Your task to perform on an android device: turn on the 12-hour format for clock Image 0: 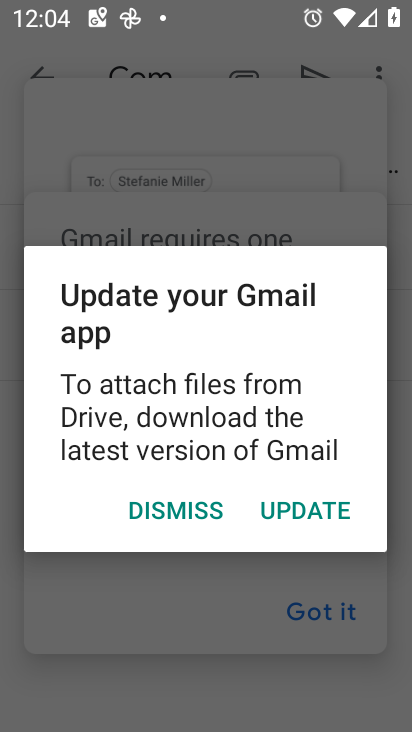
Step 0: press home button
Your task to perform on an android device: turn on the 12-hour format for clock Image 1: 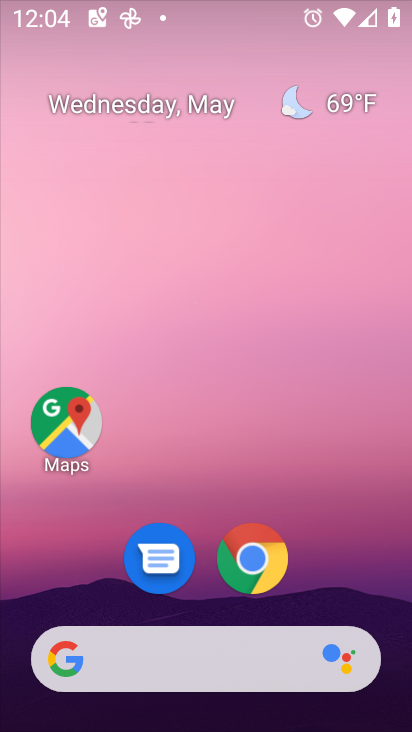
Step 1: drag from (398, 661) to (295, 110)
Your task to perform on an android device: turn on the 12-hour format for clock Image 2: 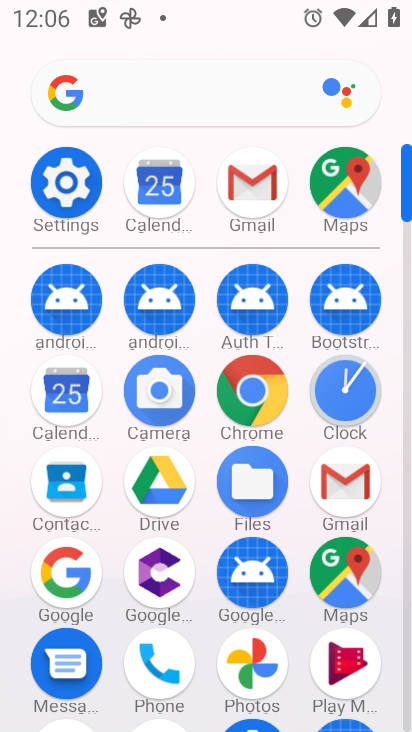
Step 2: click (323, 384)
Your task to perform on an android device: turn on the 12-hour format for clock Image 3: 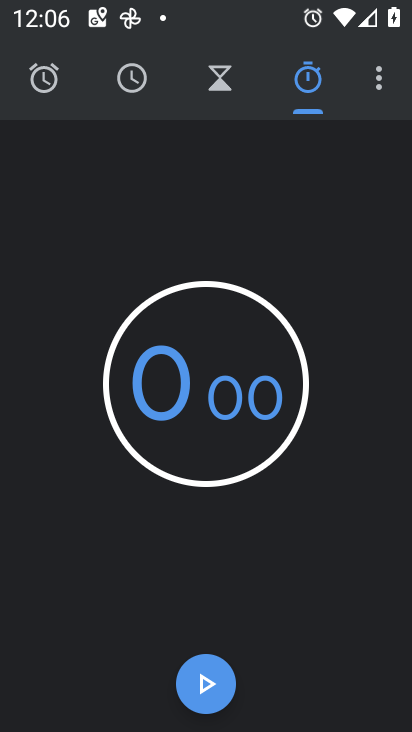
Step 3: click (380, 78)
Your task to perform on an android device: turn on the 12-hour format for clock Image 4: 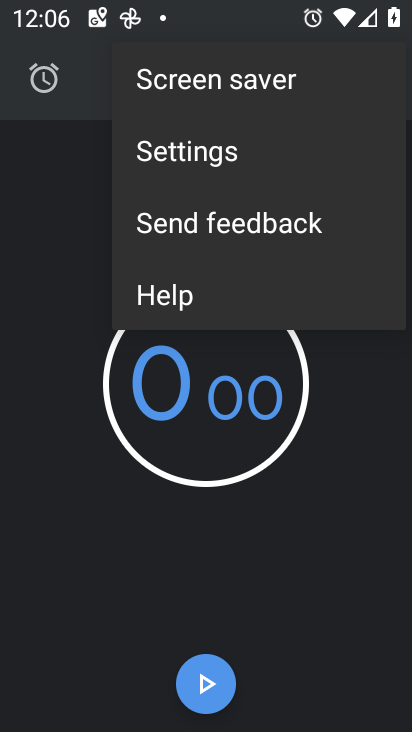
Step 4: click (225, 153)
Your task to perform on an android device: turn on the 12-hour format for clock Image 5: 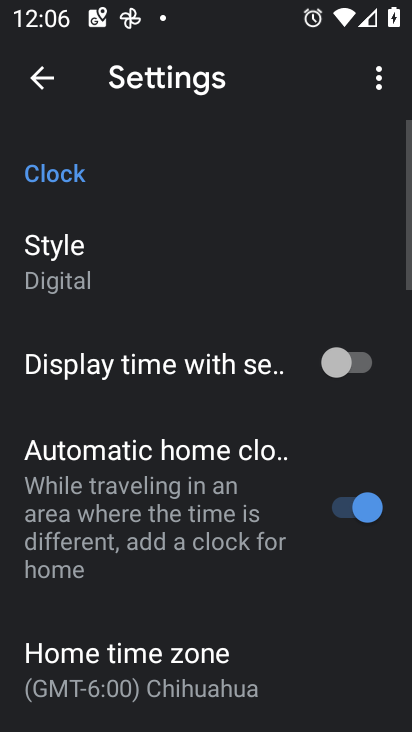
Step 5: drag from (167, 662) to (161, 278)
Your task to perform on an android device: turn on the 12-hour format for clock Image 6: 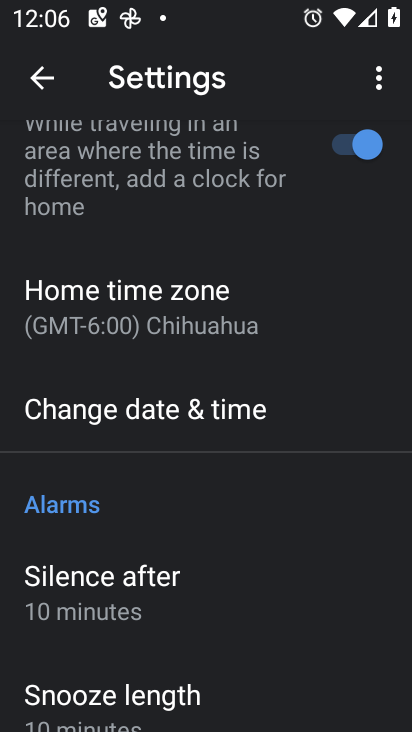
Step 6: click (166, 434)
Your task to perform on an android device: turn on the 12-hour format for clock Image 7: 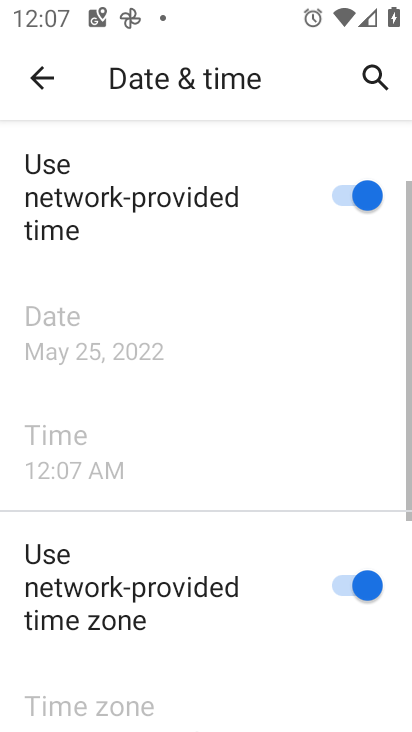
Step 7: task complete